Your task to perform on an android device: Open Google Chrome and click the shortcut for Amazon.com Image 0: 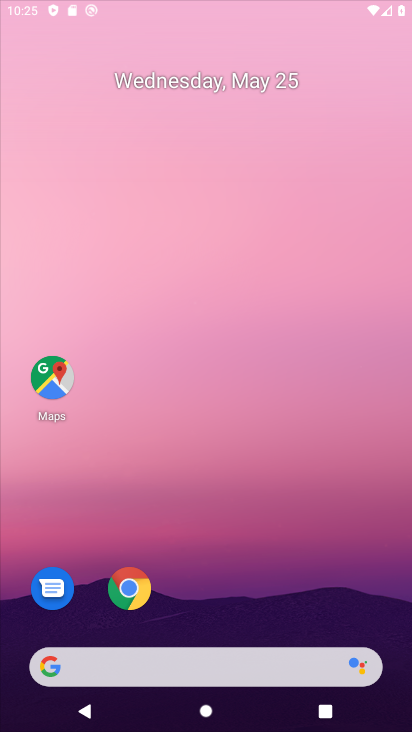
Step 0: click (206, 114)
Your task to perform on an android device: Open Google Chrome and click the shortcut for Amazon.com Image 1: 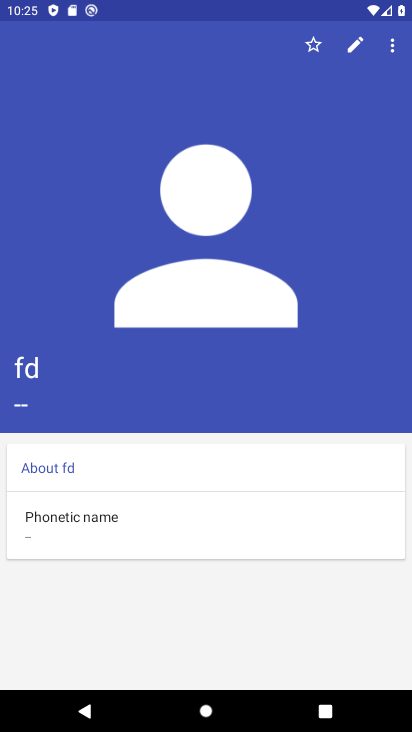
Step 1: press home button
Your task to perform on an android device: Open Google Chrome and click the shortcut for Amazon.com Image 2: 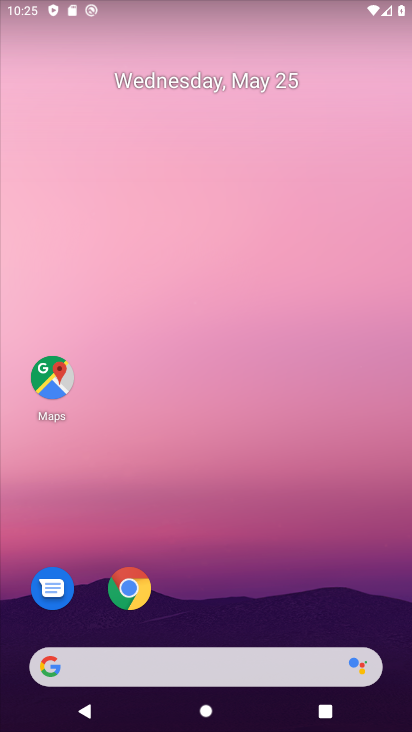
Step 2: drag from (225, 594) to (174, 130)
Your task to perform on an android device: Open Google Chrome and click the shortcut for Amazon.com Image 3: 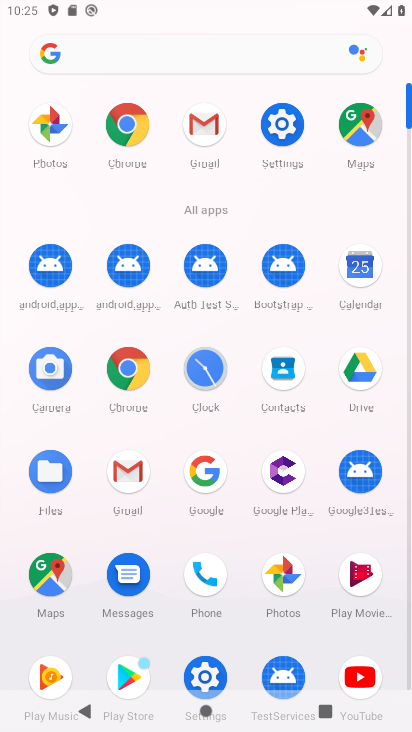
Step 3: click (127, 103)
Your task to perform on an android device: Open Google Chrome and click the shortcut for Amazon.com Image 4: 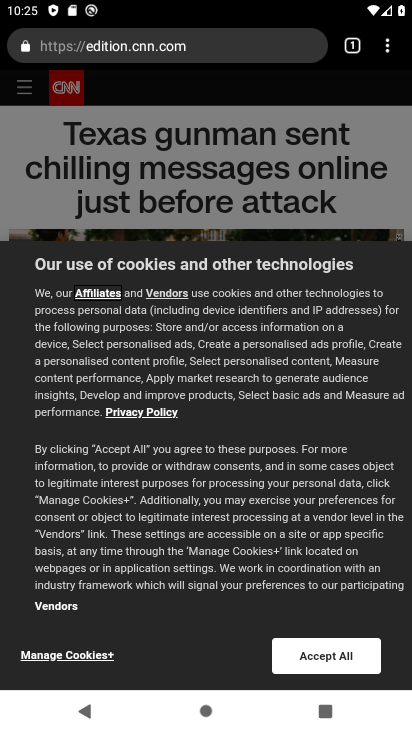
Step 4: click (241, 50)
Your task to perform on an android device: Open Google Chrome and click the shortcut for Amazon.com Image 5: 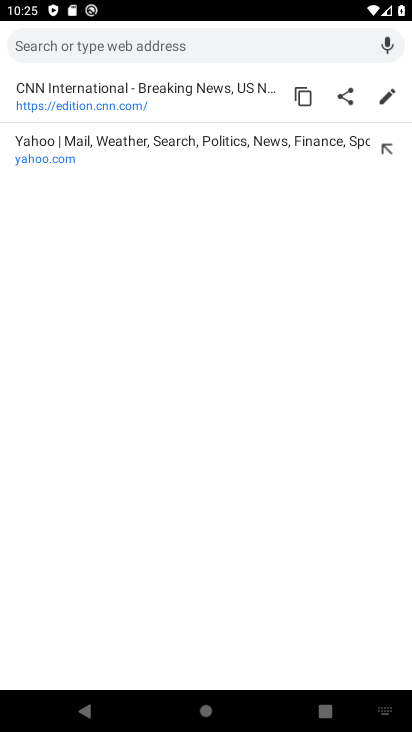
Step 5: type "amazon.com"
Your task to perform on an android device: Open Google Chrome and click the shortcut for Amazon.com Image 6: 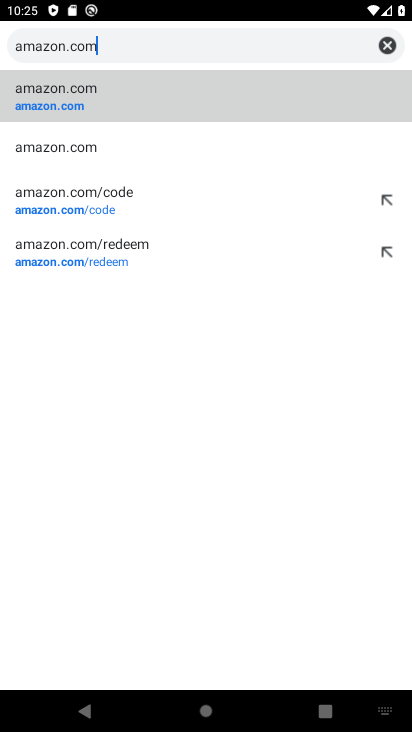
Step 6: click (68, 105)
Your task to perform on an android device: Open Google Chrome and click the shortcut for Amazon.com Image 7: 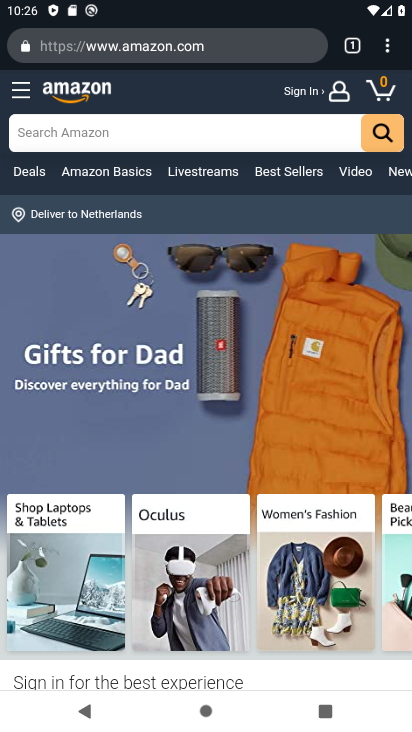
Step 7: task complete